Your task to perform on an android device: turn on showing notifications on the lock screen Image 0: 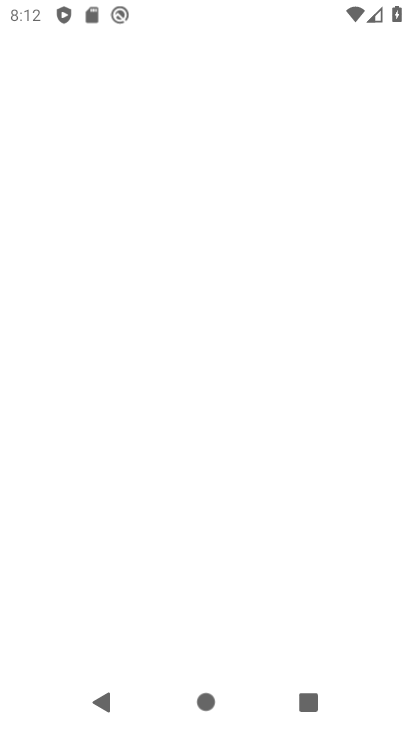
Step 0: drag from (379, 568) to (367, 103)
Your task to perform on an android device: turn on showing notifications on the lock screen Image 1: 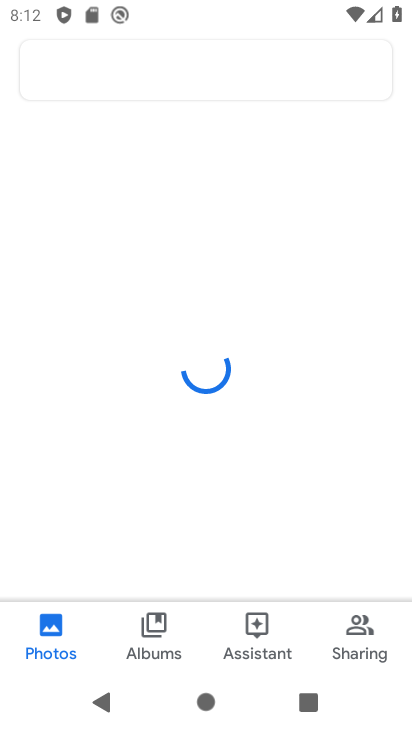
Step 1: press home button
Your task to perform on an android device: turn on showing notifications on the lock screen Image 2: 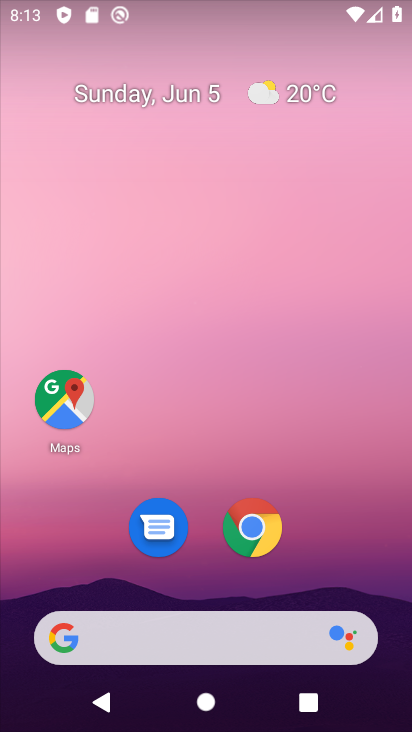
Step 2: drag from (368, 574) to (382, 36)
Your task to perform on an android device: turn on showing notifications on the lock screen Image 3: 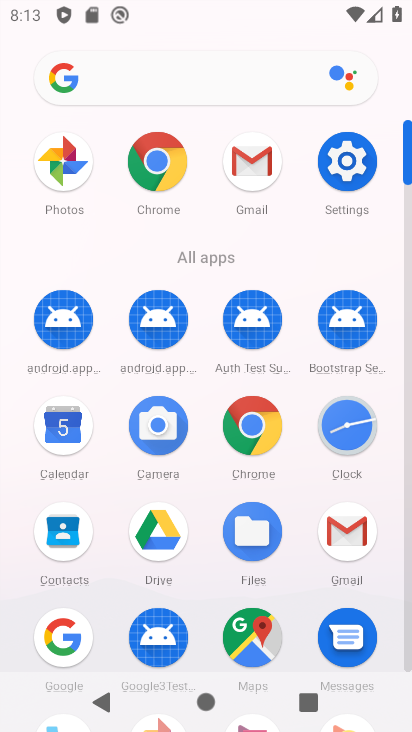
Step 3: click (366, 167)
Your task to perform on an android device: turn on showing notifications on the lock screen Image 4: 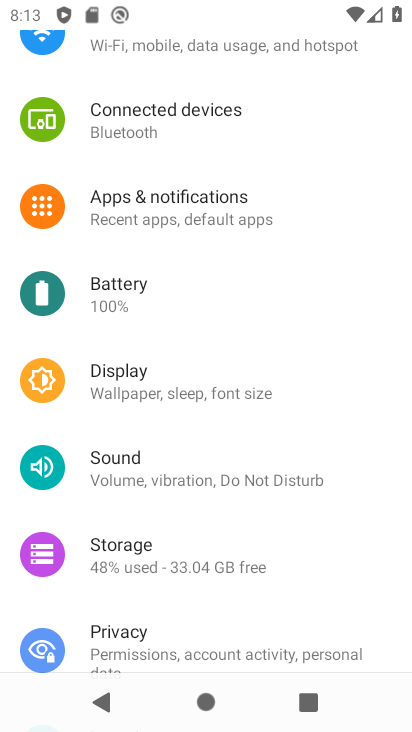
Step 4: click (237, 224)
Your task to perform on an android device: turn on showing notifications on the lock screen Image 5: 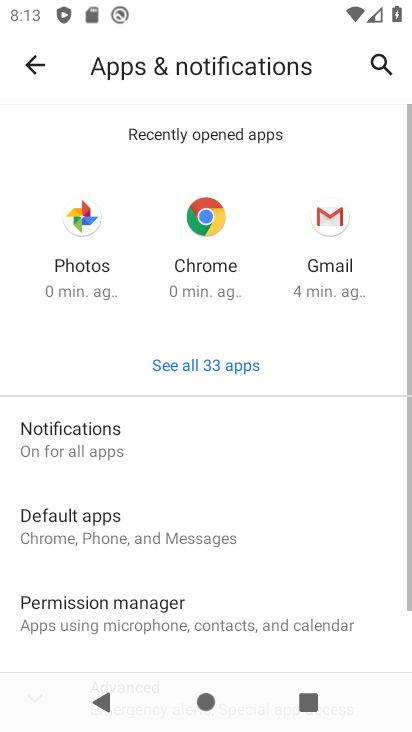
Step 5: click (102, 429)
Your task to perform on an android device: turn on showing notifications on the lock screen Image 6: 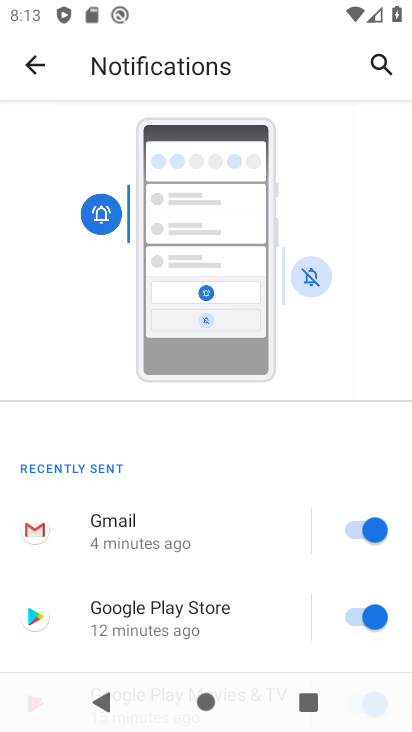
Step 6: drag from (157, 586) to (129, 119)
Your task to perform on an android device: turn on showing notifications on the lock screen Image 7: 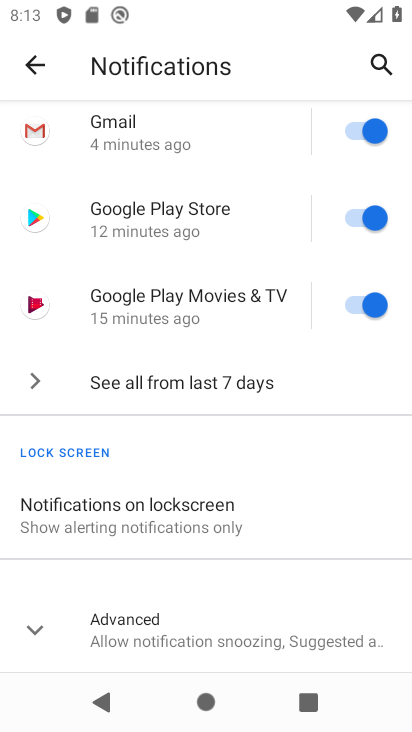
Step 7: click (194, 530)
Your task to perform on an android device: turn on showing notifications on the lock screen Image 8: 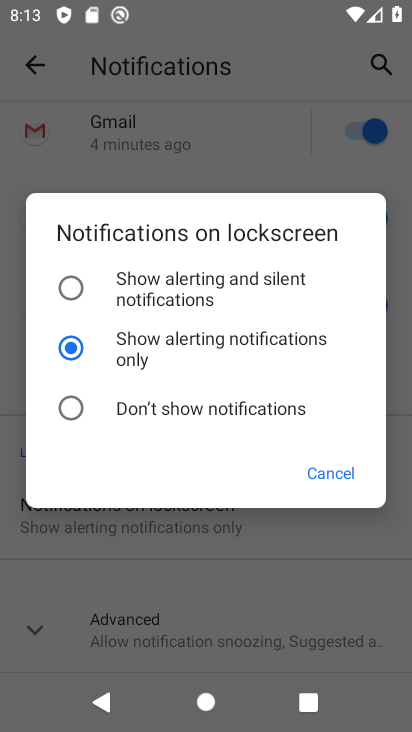
Step 8: task complete